Your task to perform on an android device: Go to settings Image 0: 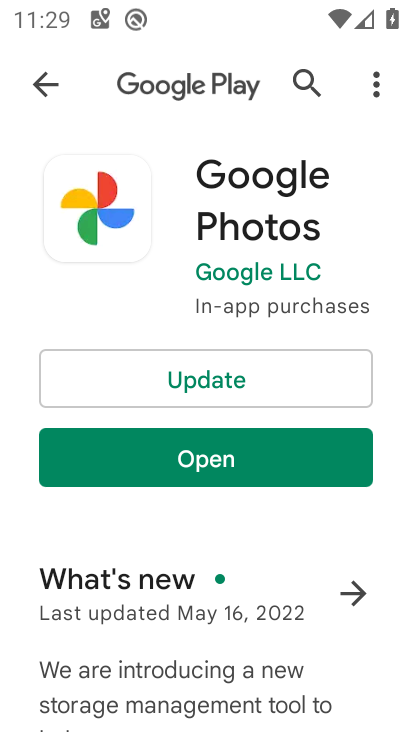
Step 0: click (47, 85)
Your task to perform on an android device: Go to settings Image 1: 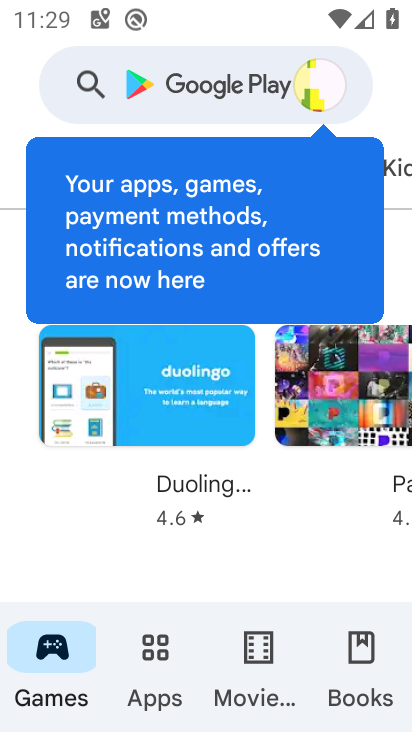
Step 1: press home button
Your task to perform on an android device: Go to settings Image 2: 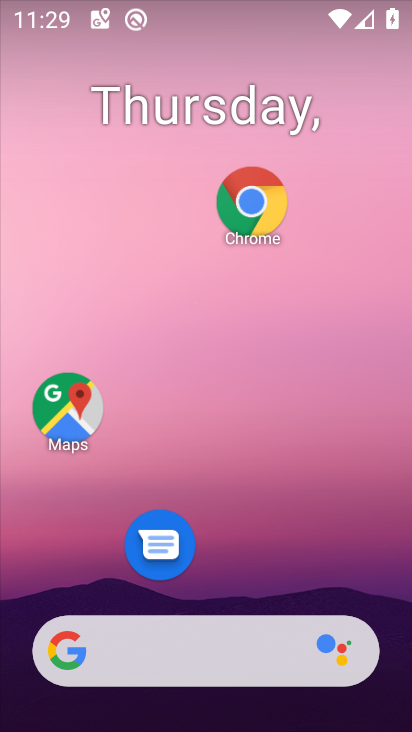
Step 2: drag from (285, 503) to (319, 99)
Your task to perform on an android device: Go to settings Image 3: 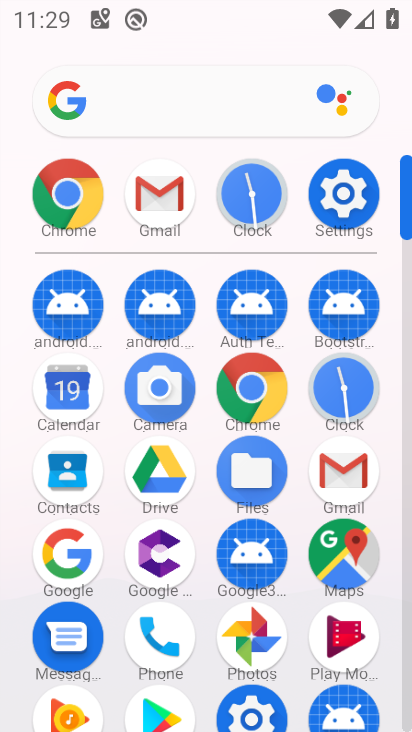
Step 3: click (339, 205)
Your task to perform on an android device: Go to settings Image 4: 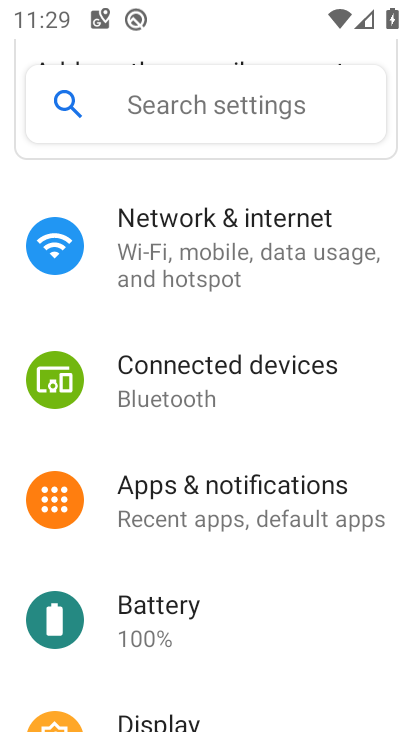
Step 4: task complete